Your task to perform on an android device: search for starred emails in the gmail app Image 0: 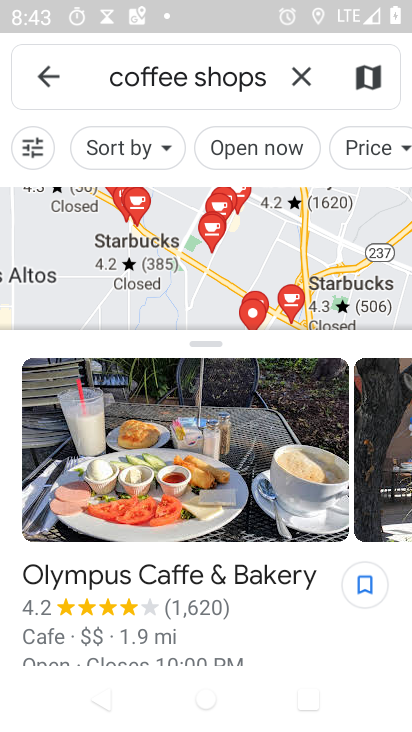
Step 0: press home button
Your task to perform on an android device: search for starred emails in the gmail app Image 1: 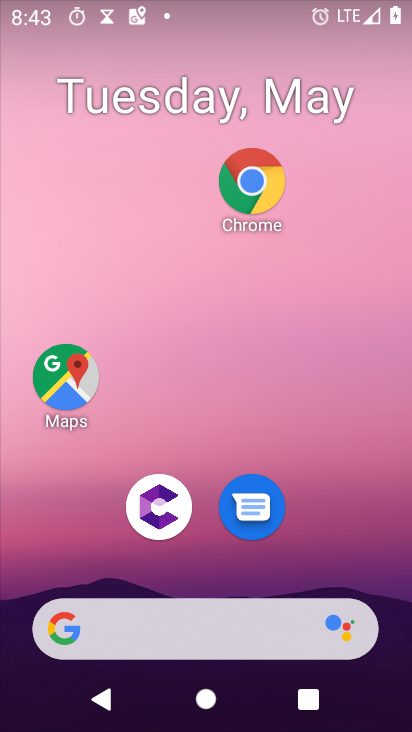
Step 1: drag from (319, 555) to (355, 72)
Your task to perform on an android device: search for starred emails in the gmail app Image 2: 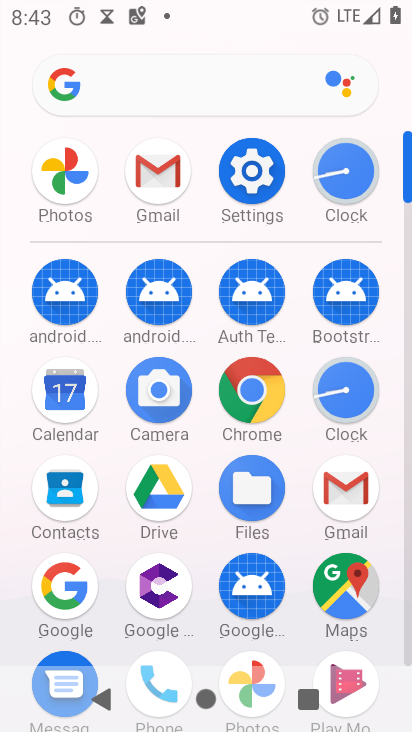
Step 2: click (354, 480)
Your task to perform on an android device: search for starred emails in the gmail app Image 3: 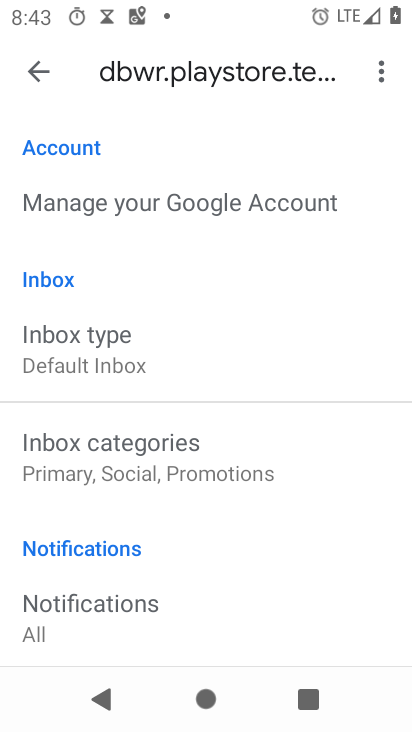
Step 3: click (43, 84)
Your task to perform on an android device: search for starred emails in the gmail app Image 4: 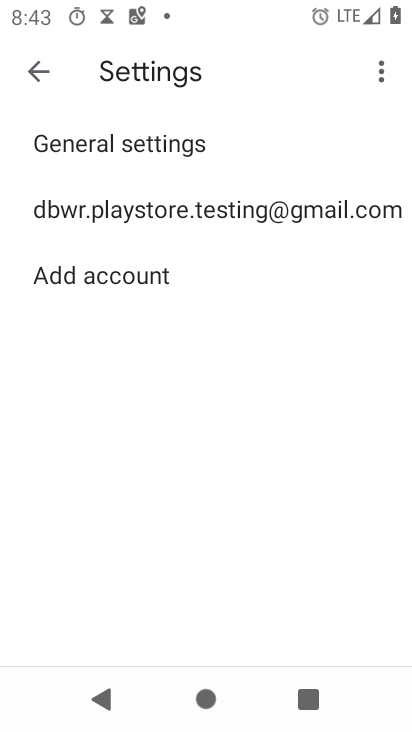
Step 4: click (42, 78)
Your task to perform on an android device: search for starred emails in the gmail app Image 5: 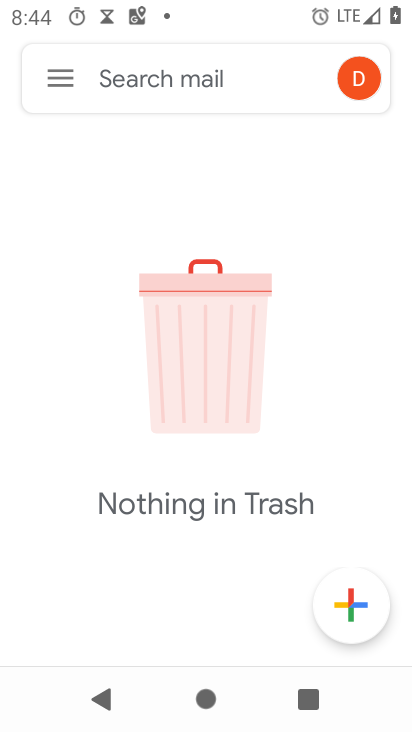
Step 5: click (44, 76)
Your task to perform on an android device: search for starred emails in the gmail app Image 6: 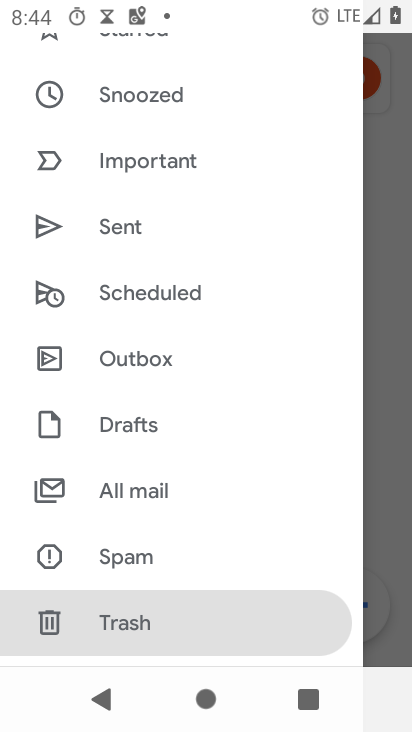
Step 6: drag from (184, 194) to (243, 352)
Your task to perform on an android device: search for starred emails in the gmail app Image 7: 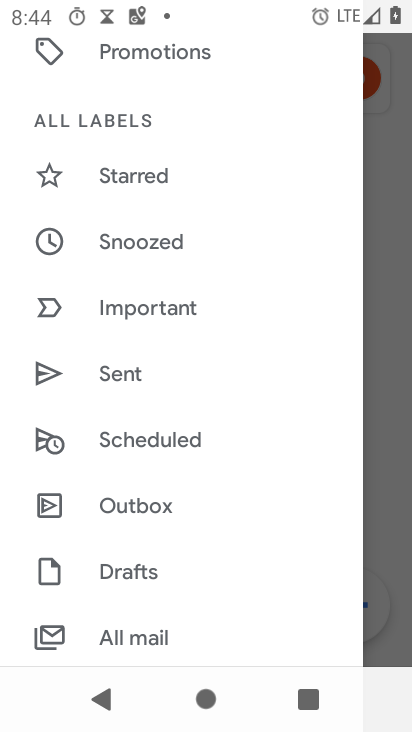
Step 7: click (164, 177)
Your task to perform on an android device: search for starred emails in the gmail app Image 8: 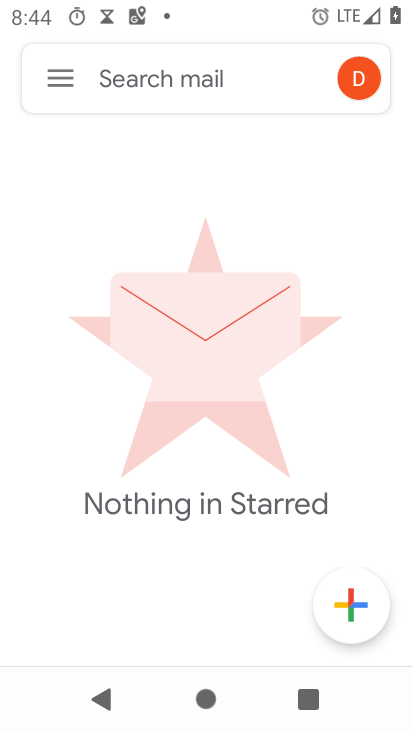
Step 8: task complete